Your task to perform on an android device: toggle pop-ups in chrome Image 0: 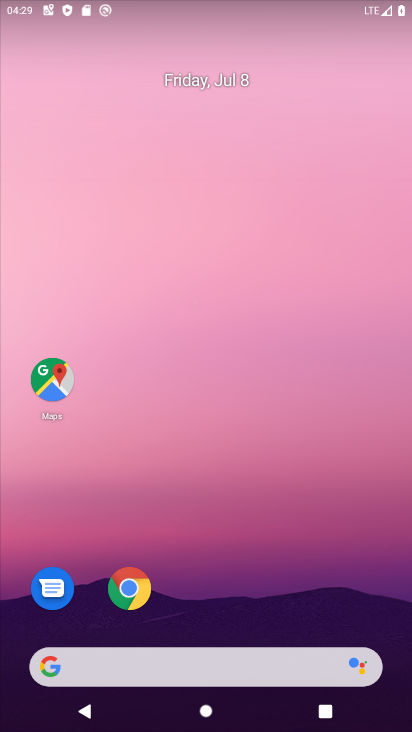
Step 0: click (133, 592)
Your task to perform on an android device: toggle pop-ups in chrome Image 1: 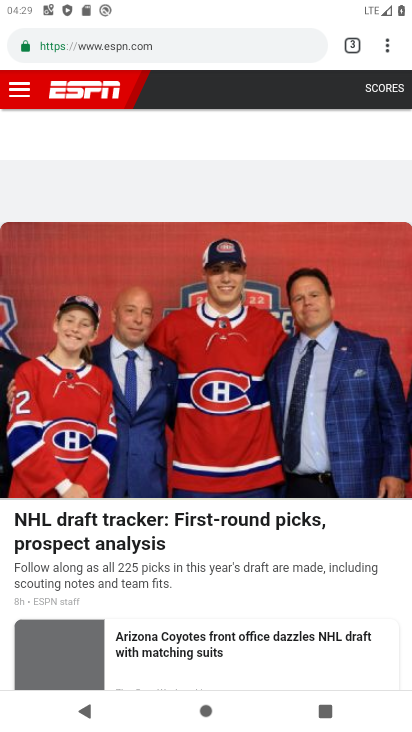
Step 1: click (387, 50)
Your task to perform on an android device: toggle pop-ups in chrome Image 2: 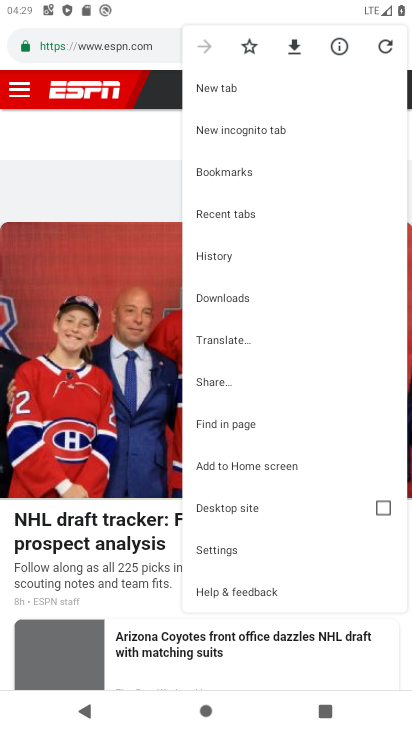
Step 2: click (218, 548)
Your task to perform on an android device: toggle pop-ups in chrome Image 3: 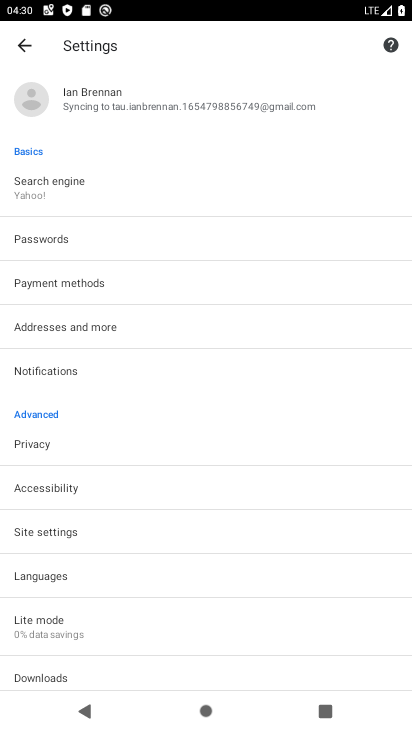
Step 3: click (61, 531)
Your task to perform on an android device: toggle pop-ups in chrome Image 4: 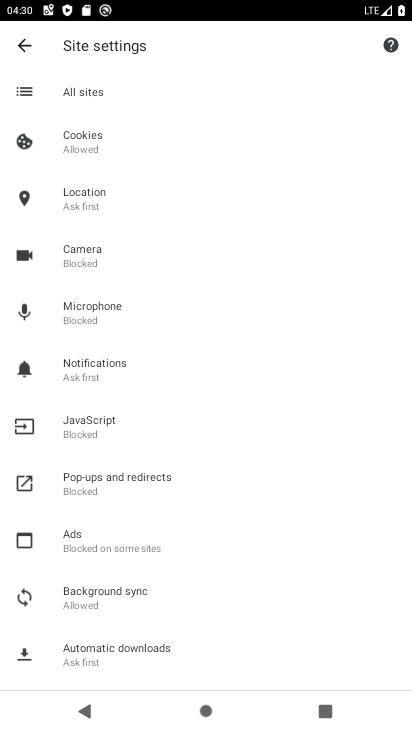
Step 4: click (83, 486)
Your task to perform on an android device: toggle pop-ups in chrome Image 5: 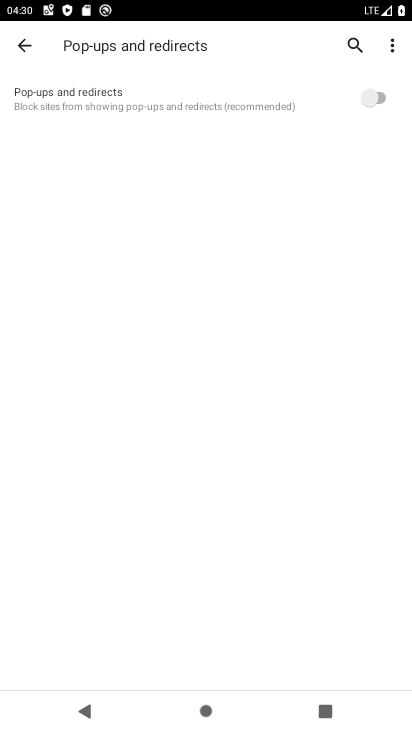
Step 5: click (381, 96)
Your task to perform on an android device: toggle pop-ups in chrome Image 6: 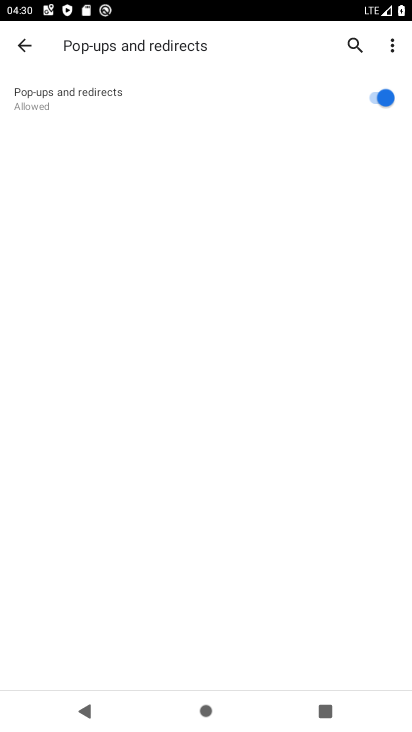
Step 6: task complete